Your task to perform on an android device: Open Maps and search for coffee Image 0: 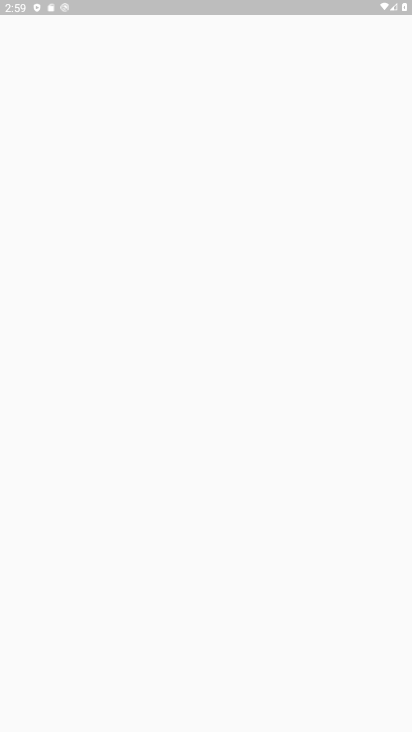
Step 0: press home button
Your task to perform on an android device: Open Maps and search for coffee Image 1: 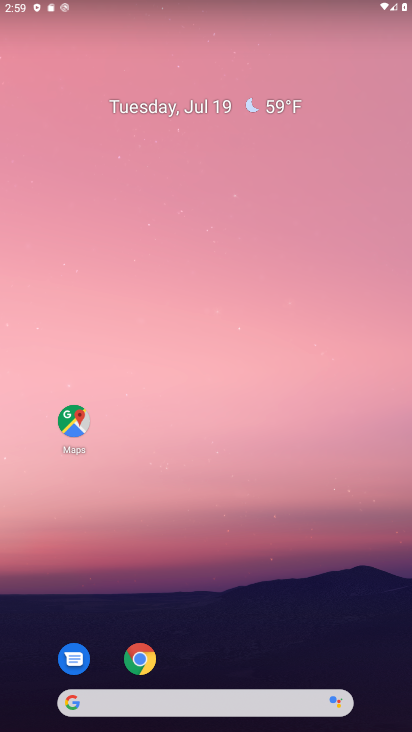
Step 1: click (73, 424)
Your task to perform on an android device: Open Maps and search for coffee Image 2: 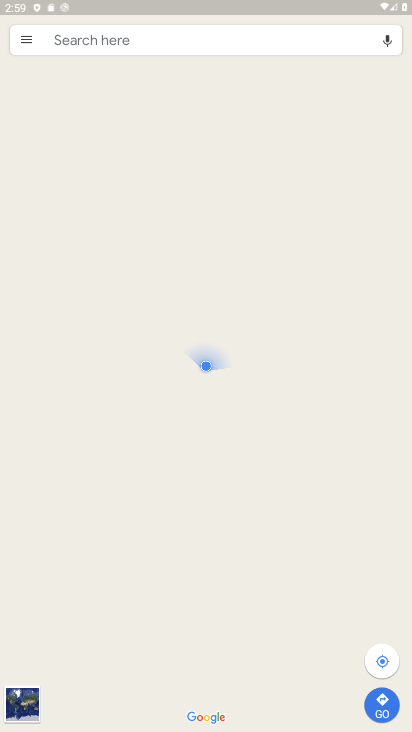
Step 2: click (143, 46)
Your task to perform on an android device: Open Maps and search for coffee Image 3: 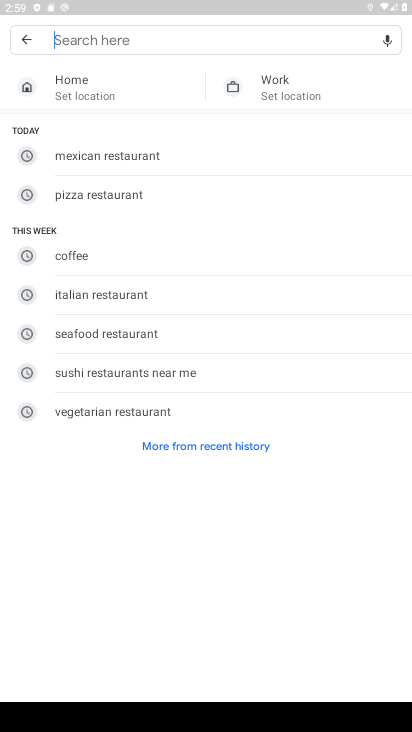
Step 3: type "coffee"
Your task to perform on an android device: Open Maps and search for coffee Image 4: 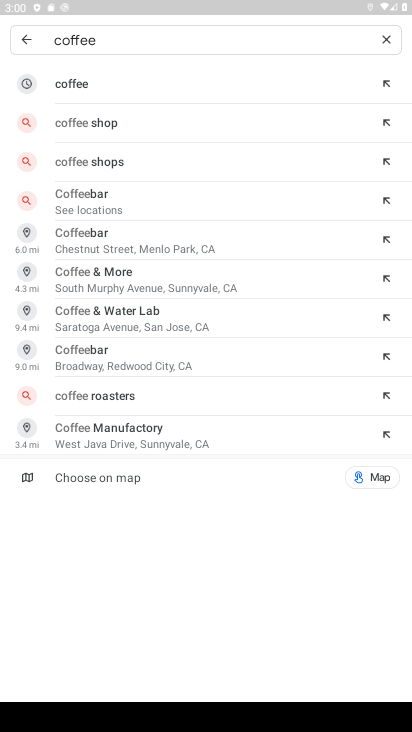
Step 4: click (71, 91)
Your task to perform on an android device: Open Maps and search for coffee Image 5: 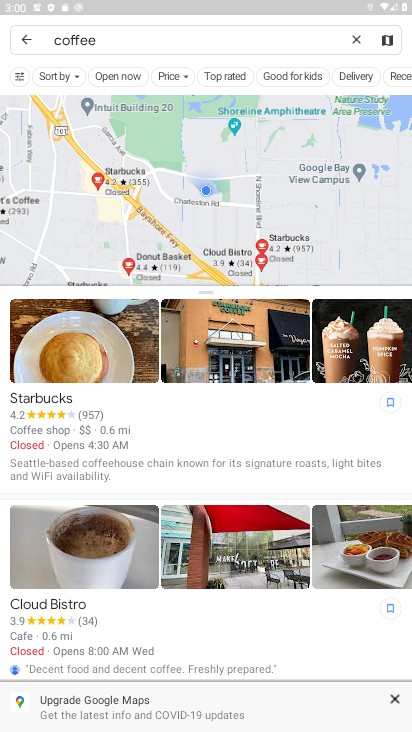
Step 5: task complete